Your task to perform on an android device: visit the assistant section in the google photos Image 0: 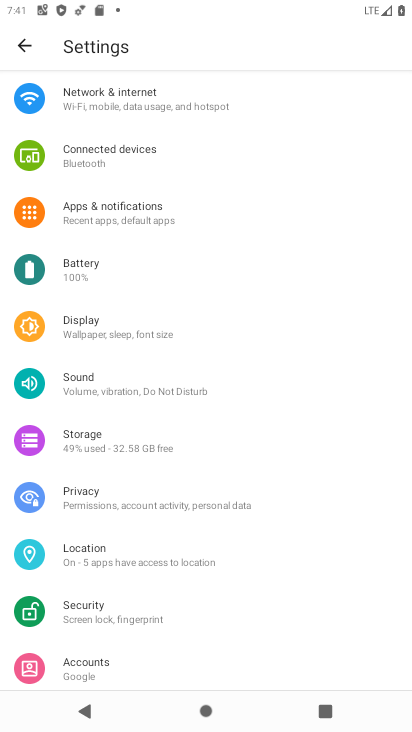
Step 0: press home button
Your task to perform on an android device: visit the assistant section in the google photos Image 1: 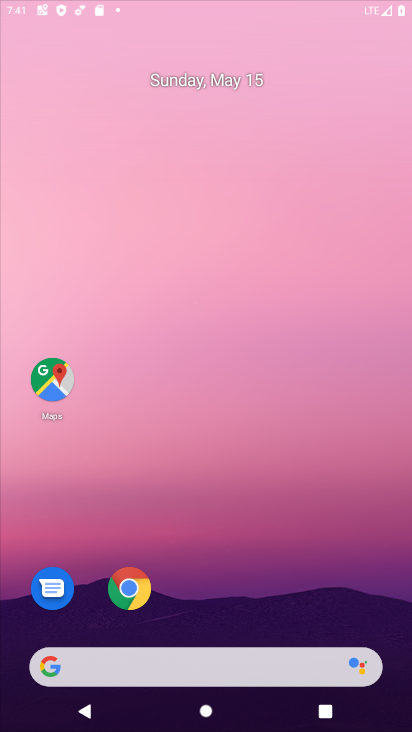
Step 1: drag from (369, 629) to (258, 0)
Your task to perform on an android device: visit the assistant section in the google photos Image 2: 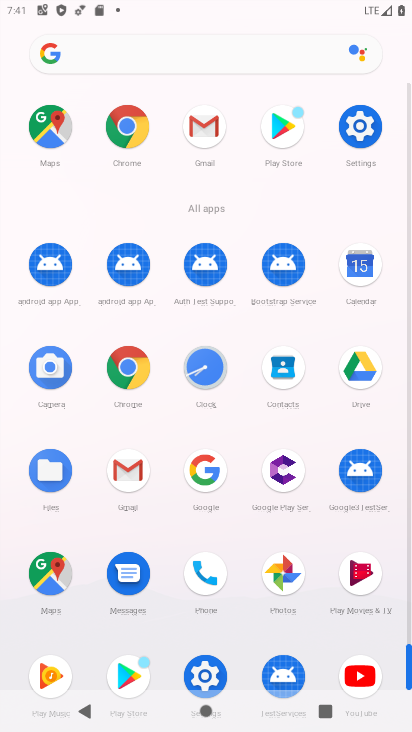
Step 2: click (283, 574)
Your task to perform on an android device: visit the assistant section in the google photos Image 3: 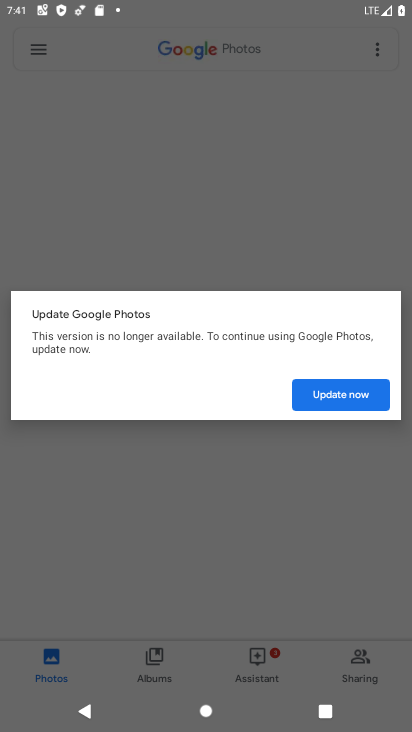
Step 3: click (336, 394)
Your task to perform on an android device: visit the assistant section in the google photos Image 4: 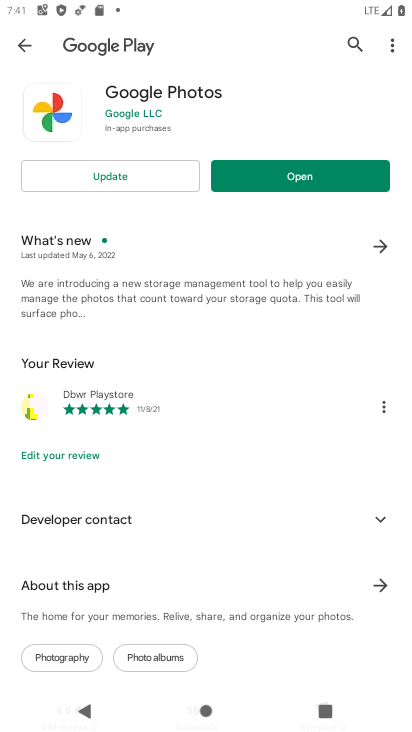
Step 4: click (90, 164)
Your task to perform on an android device: visit the assistant section in the google photos Image 5: 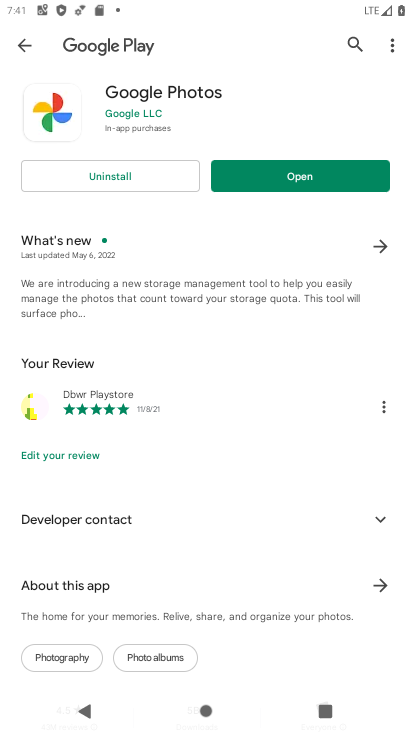
Step 5: click (302, 182)
Your task to perform on an android device: visit the assistant section in the google photos Image 6: 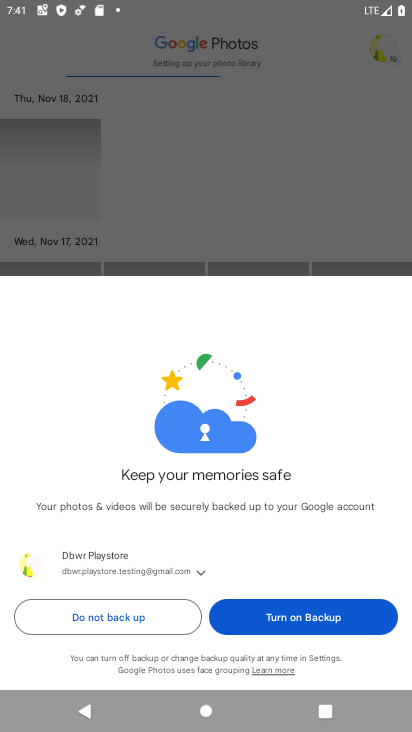
Step 6: task complete